Your task to perform on an android device: install app "Venmo" Image 0: 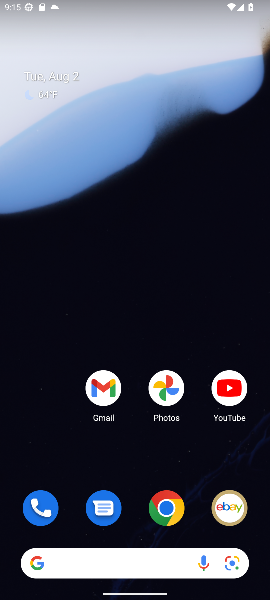
Step 0: drag from (178, 445) to (195, 335)
Your task to perform on an android device: install app "Venmo" Image 1: 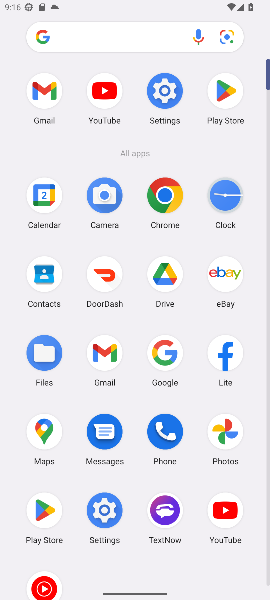
Step 1: click (212, 120)
Your task to perform on an android device: install app "Venmo" Image 2: 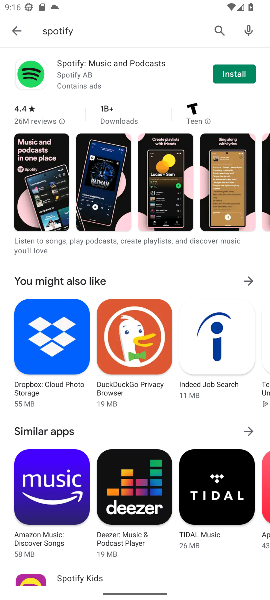
Step 2: click (17, 33)
Your task to perform on an android device: install app "Venmo" Image 3: 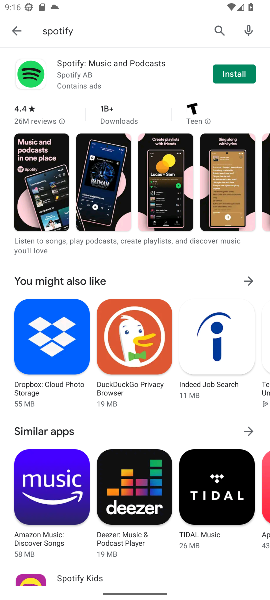
Step 3: press back button
Your task to perform on an android device: install app "Venmo" Image 4: 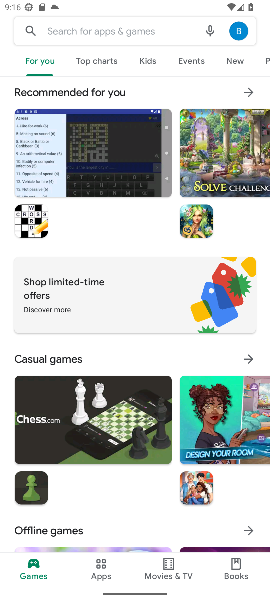
Step 4: click (99, 35)
Your task to perform on an android device: install app "Venmo" Image 5: 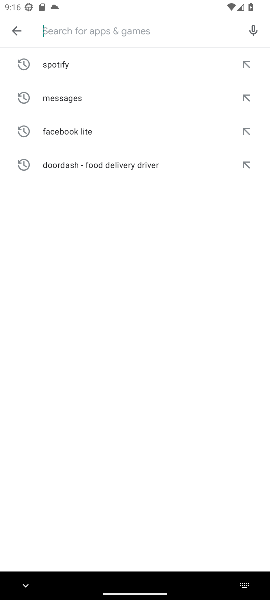
Step 5: type "venmo"
Your task to perform on an android device: install app "Venmo" Image 6: 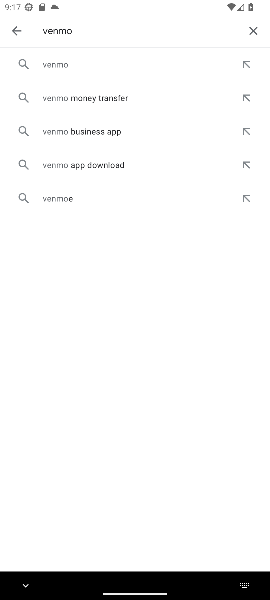
Step 6: click (85, 57)
Your task to perform on an android device: install app "Venmo" Image 7: 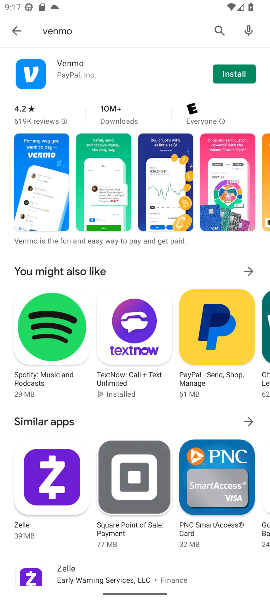
Step 7: click (231, 73)
Your task to perform on an android device: install app "Venmo" Image 8: 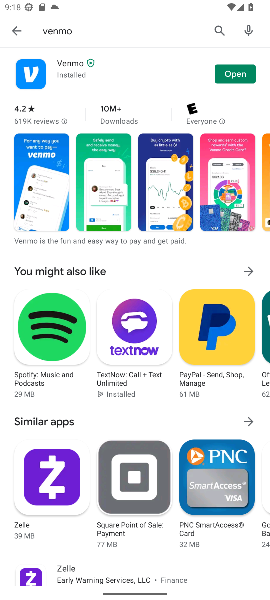
Step 8: task complete